Your task to perform on an android device: Do I have any events this weekend? Image 0: 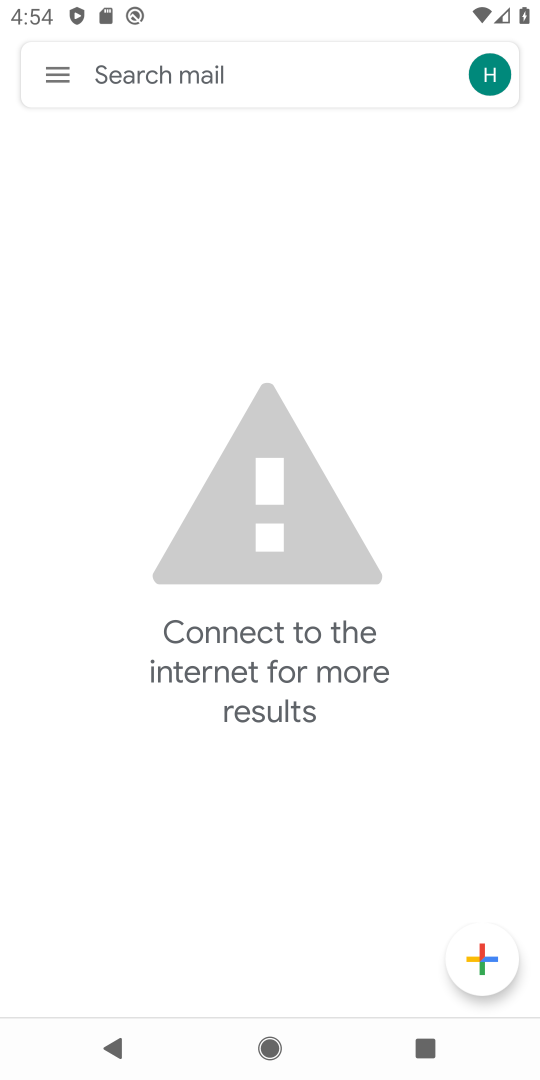
Step 0: press home button
Your task to perform on an android device: Do I have any events this weekend? Image 1: 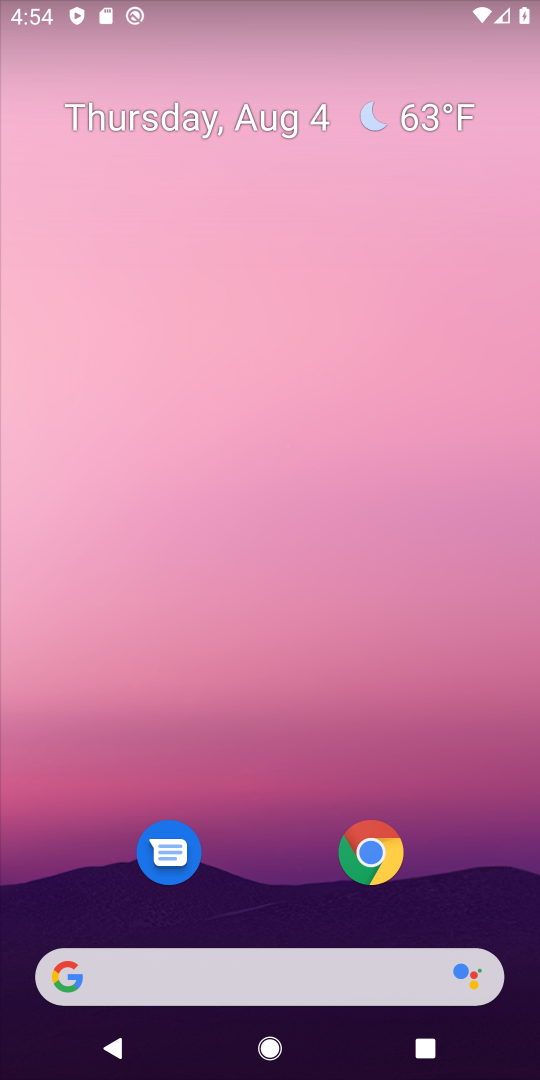
Step 1: drag from (276, 854) to (278, 69)
Your task to perform on an android device: Do I have any events this weekend? Image 2: 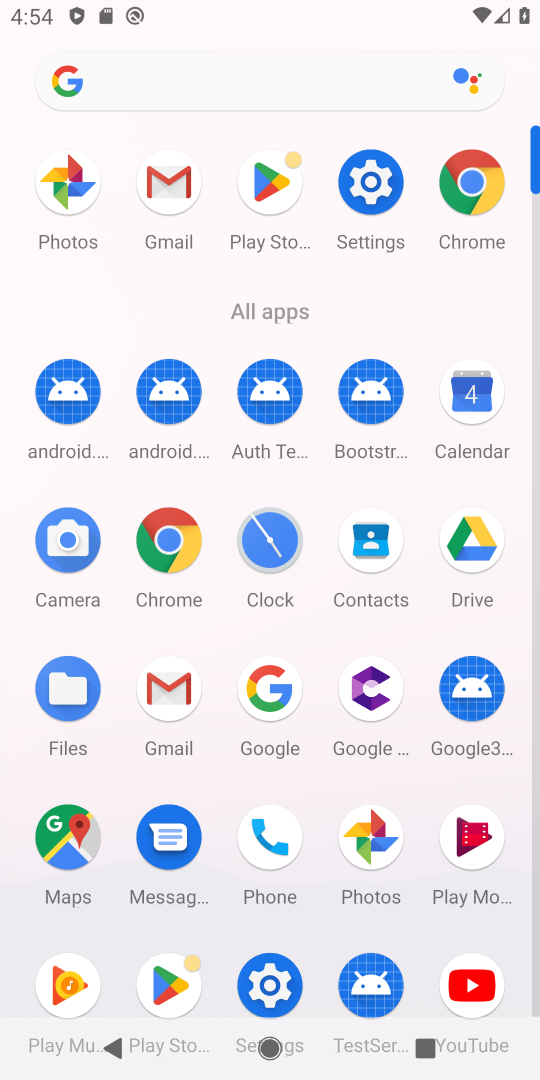
Step 2: click (474, 380)
Your task to perform on an android device: Do I have any events this weekend? Image 3: 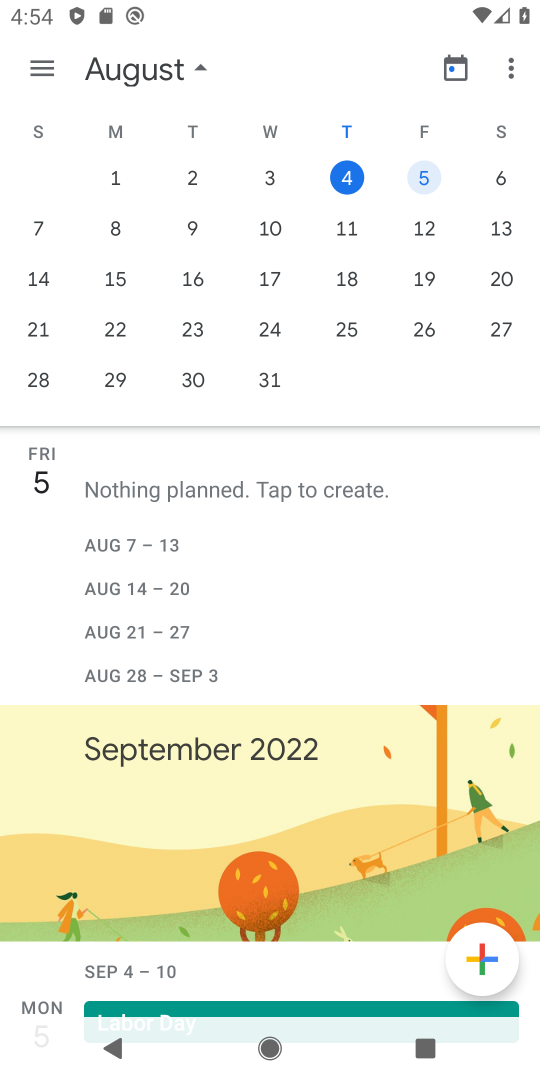
Step 3: click (40, 228)
Your task to perform on an android device: Do I have any events this weekend? Image 4: 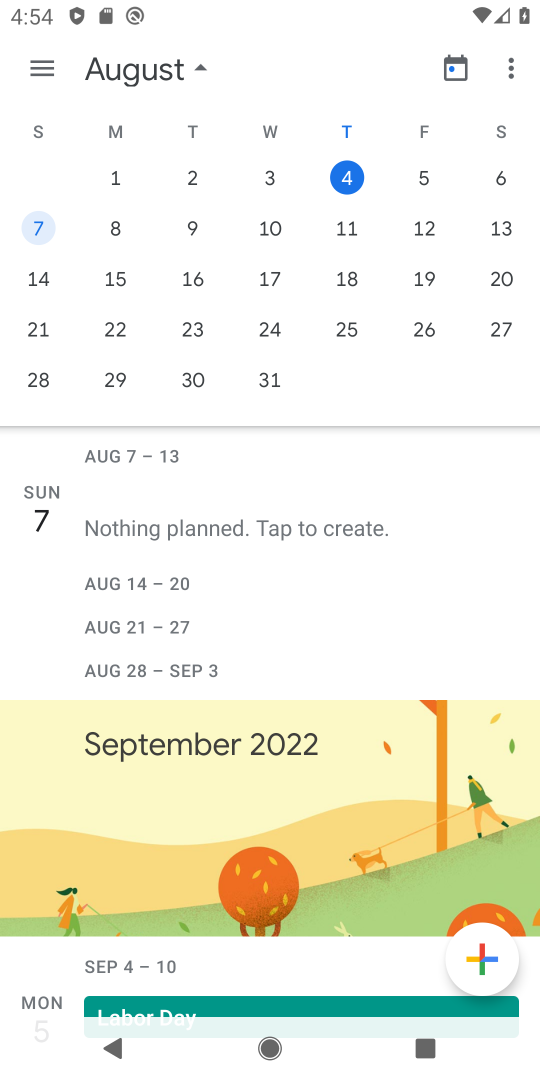
Step 4: click (49, 67)
Your task to perform on an android device: Do I have any events this weekend? Image 5: 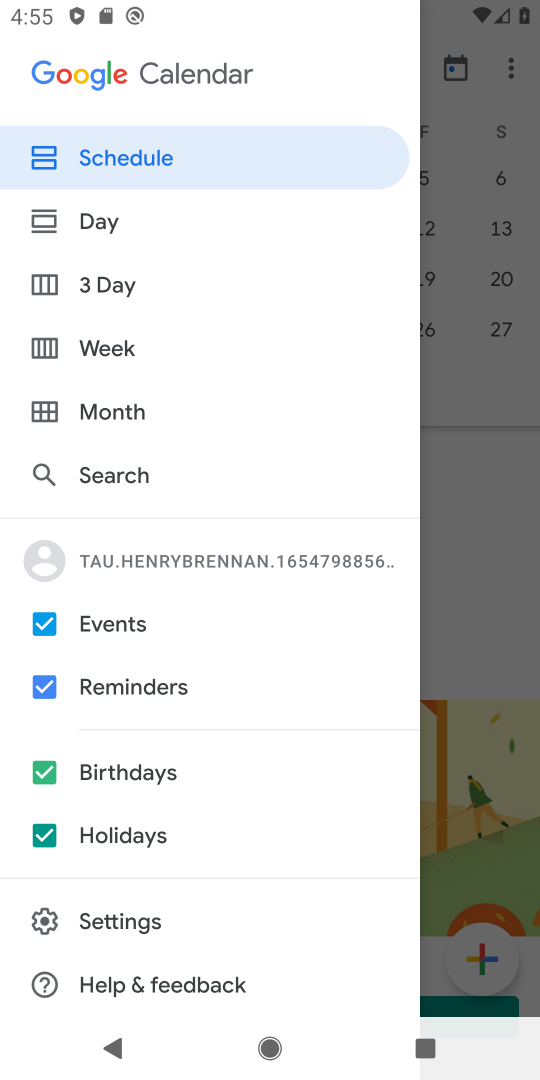
Step 5: click (119, 342)
Your task to perform on an android device: Do I have any events this weekend? Image 6: 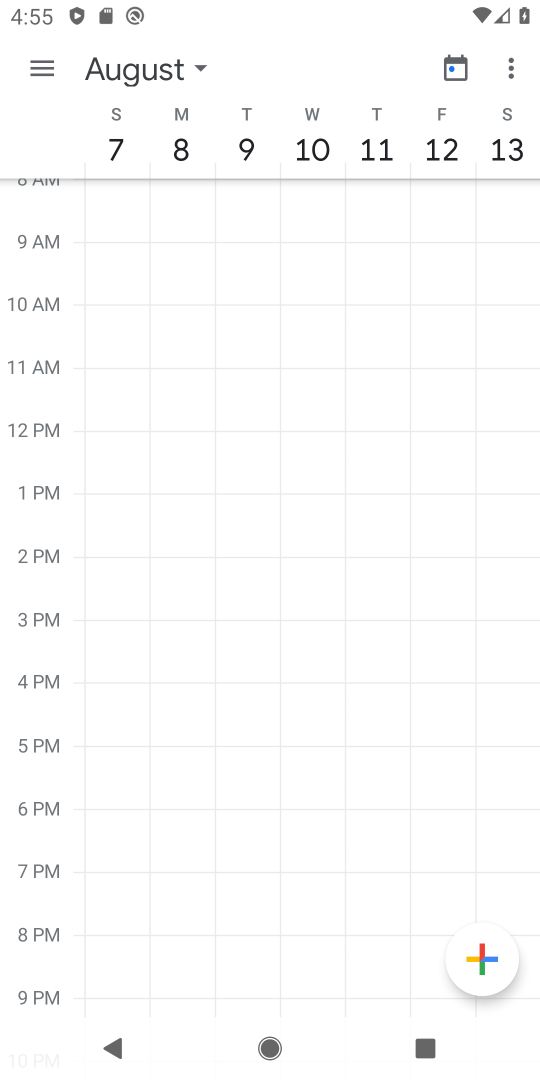
Step 6: task complete